Your task to perform on an android device: turn on notifications settings in the gmail app Image 0: 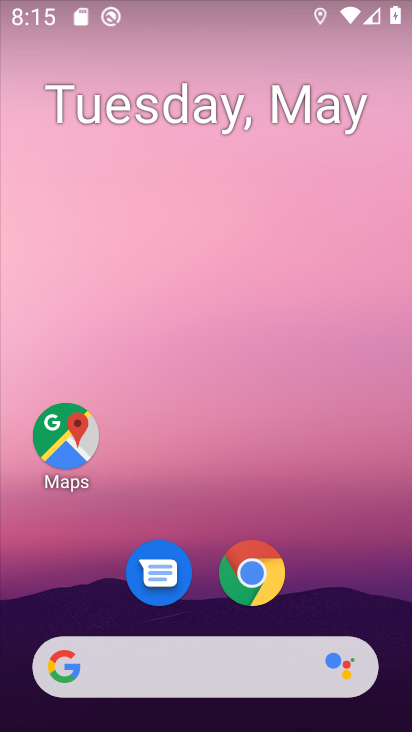
Step 0: drag from (379, 655) to (332, 249)
Your task to perform on an android device: turn on notifications settings in the gmail app Image 1: 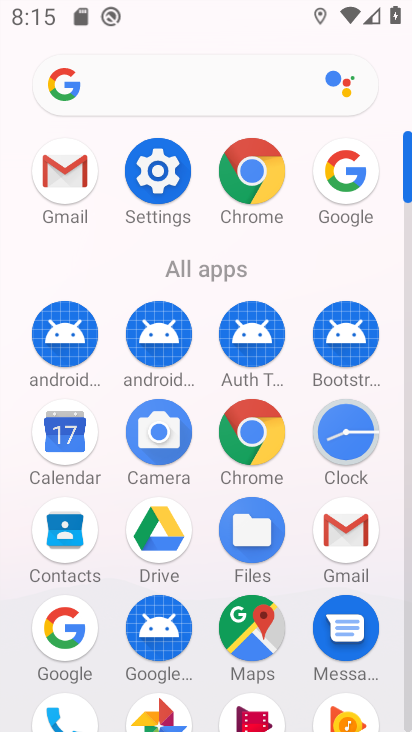
Step 1: click (348, 537)
Your task to perform on an android device: turn on notifications settings in the gmail app Image 2: 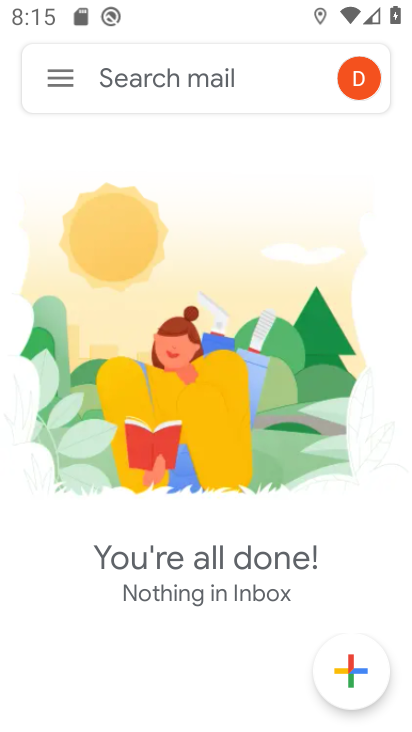
Step 2: click (58, 75)
Your task to perform on an android device: turn on notifications settings in the gmail app Image 3: 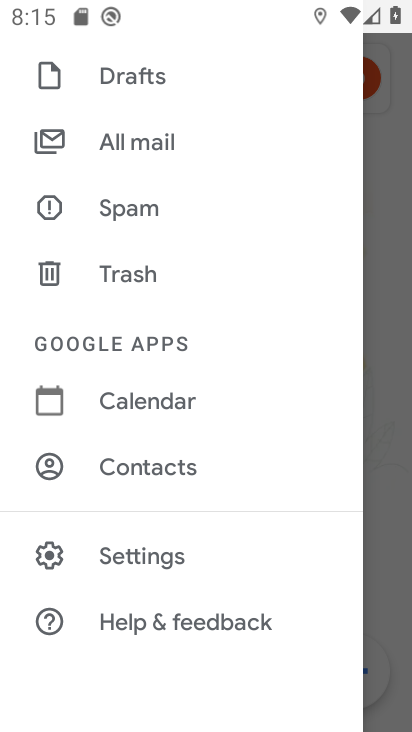
Step 3: click (119, 550)
Your task to perform on an android device: turn on notifications settings in the gmail app Image 4: 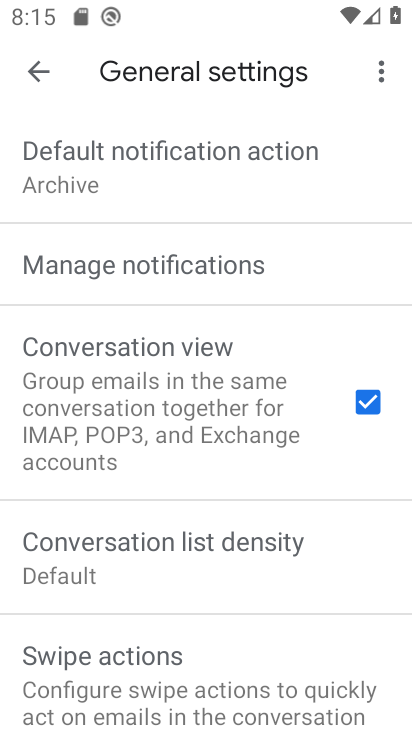
Step 4: click (142, 273)
Your task to perform on an android device: turn on notifications settings in the gmail app Image 5: 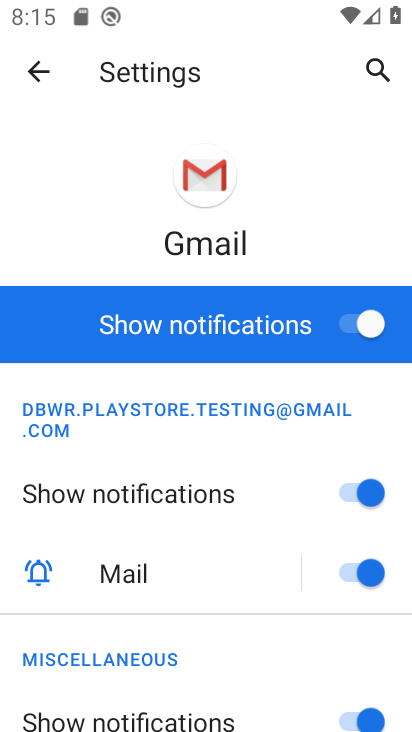
Step 5: task complete